Your task to perform on an android device: empty trash in the gmail app Image 0: 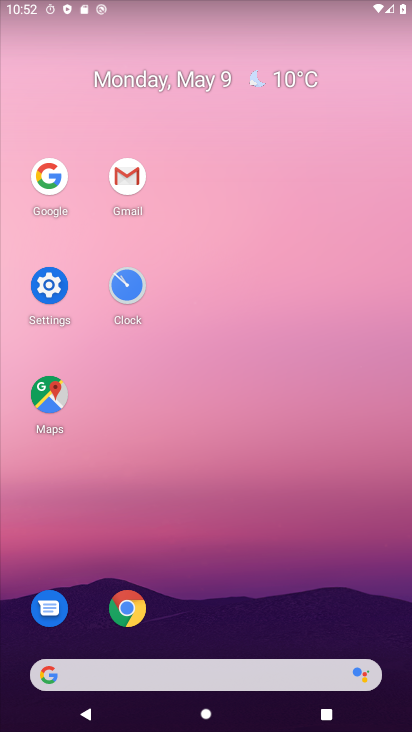
Step 0: click (131, 175)
Your task to perform on an android device: empty trash in the gmail app Image 1: 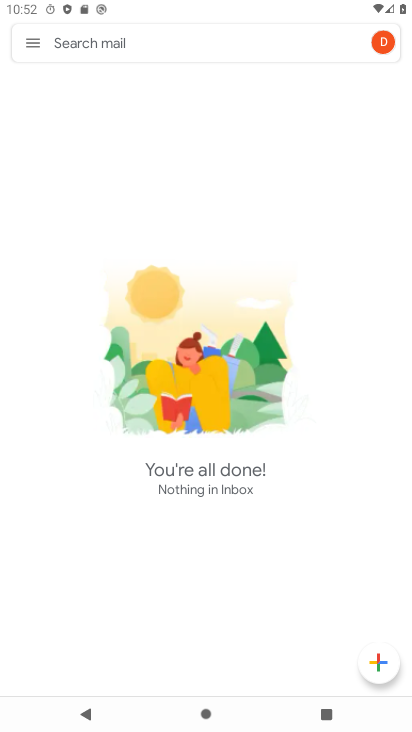
Step 1: click (37, 25)
Your task to perform on an android device: empty trash in the gmail app Image 2: 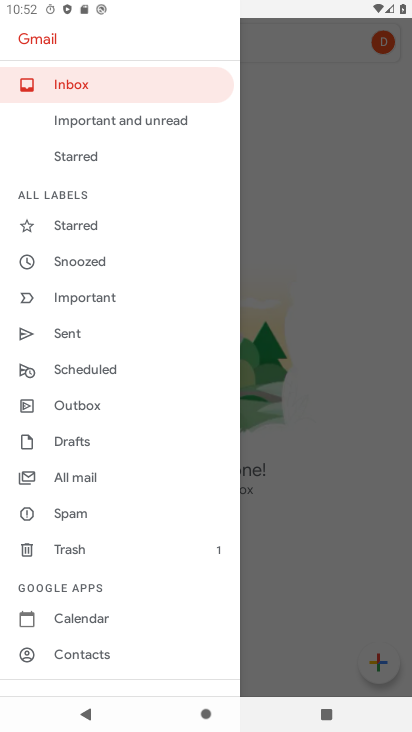
Step 2: drag from (101, 602) to (120, 218)
Your task to perform on an android device: empty trash in the gmail app Image 3: 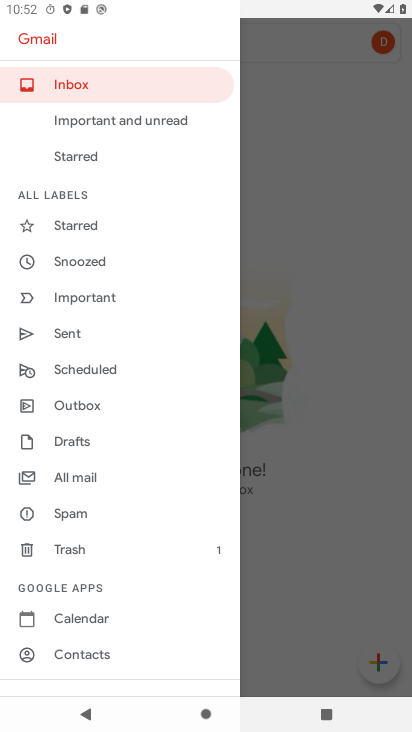
Step 3: click (80, 537)
Your task to perform on an android device: empty trash in the gmail app Image 4: 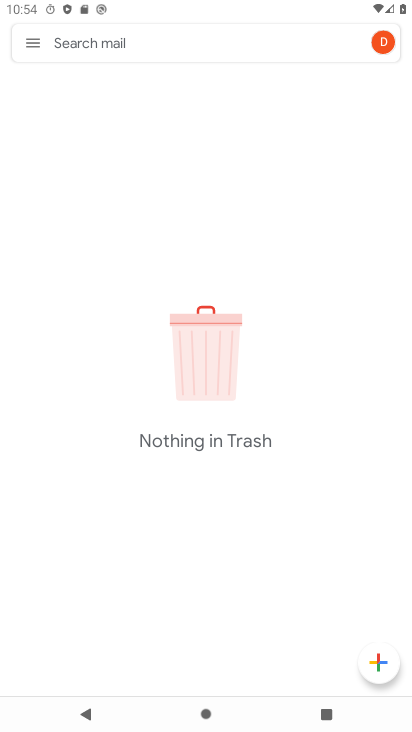
Step 4: task complete